Your task to perform on an android device: Open settings Image 0: 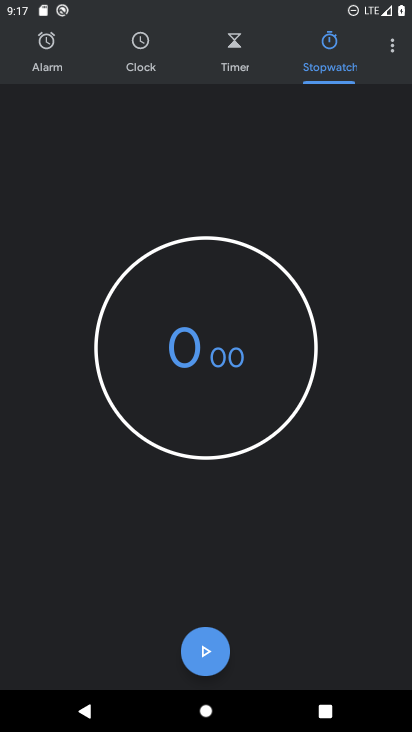
Step 0: press home button
Your task to perform on an android device: Open settings Image 1: 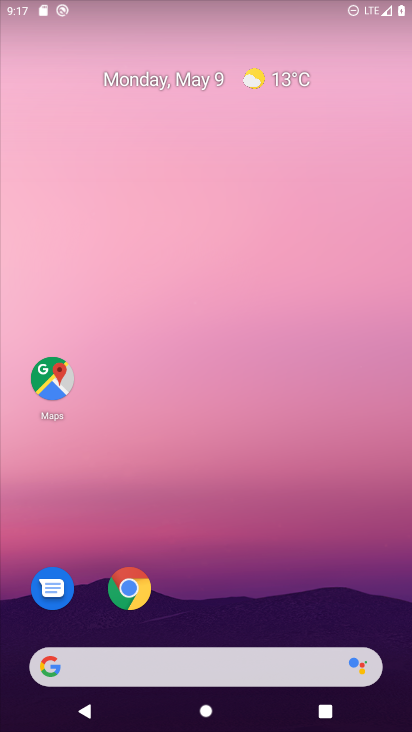
Step 1: drag from (263, 490) to (295, 304)
Your task to perform on an android device: Open settings Image 2: 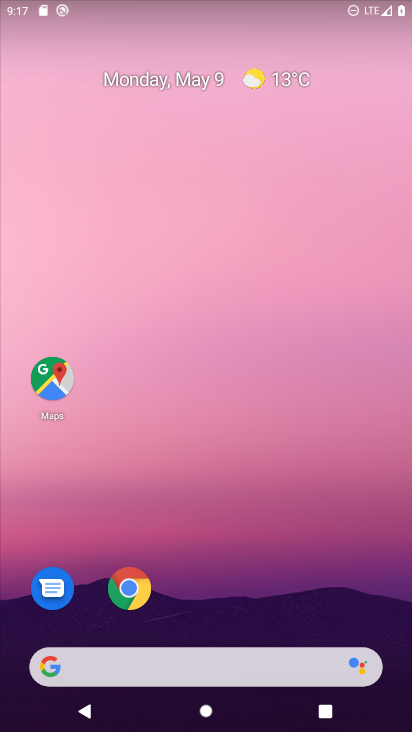
Step 2: drag from (231, 549) to (241, 34)
Your task to perform on an android device: Open settings Image 3: 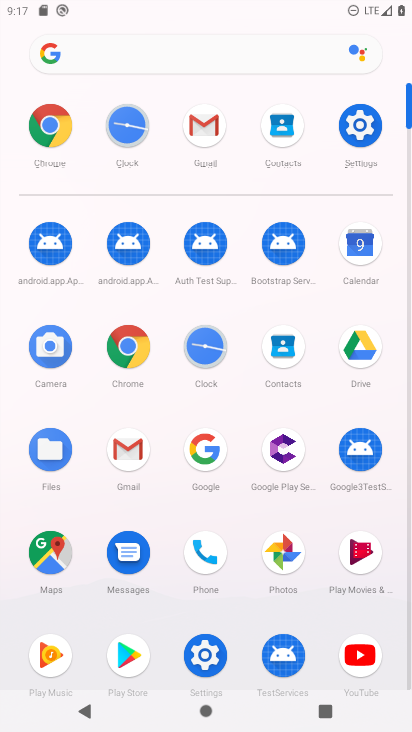
Step 3: click (355, 197)
Your task to perform on an android device: Open settings Image 4: 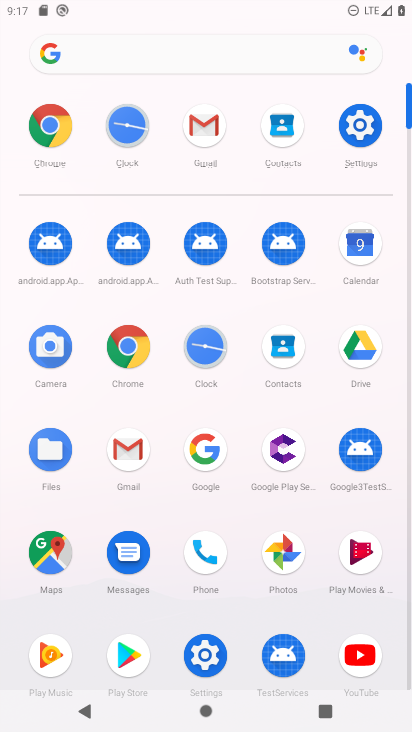
Step 4: click (355, 161)
Your task to perform on an android device: Open settings Image 5: 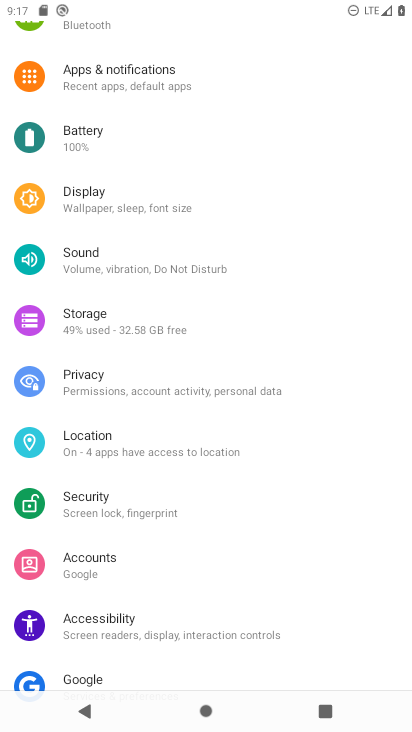
Step 5: task complete